Your task to perform on an android device: turn off location Image 0: 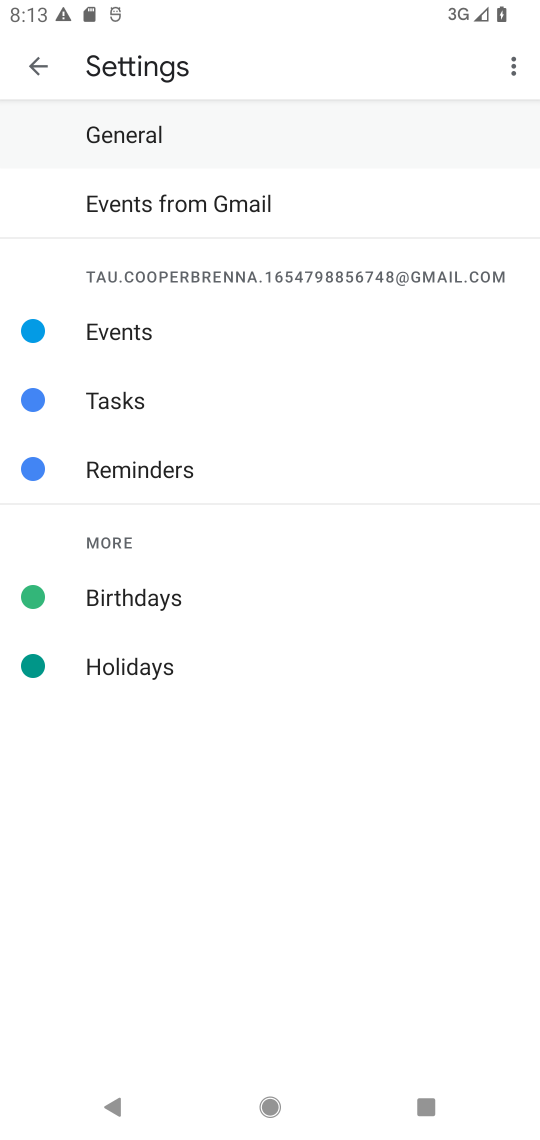
Step 0: press home button
Your task to perform on an android device: turn off location Image 1: 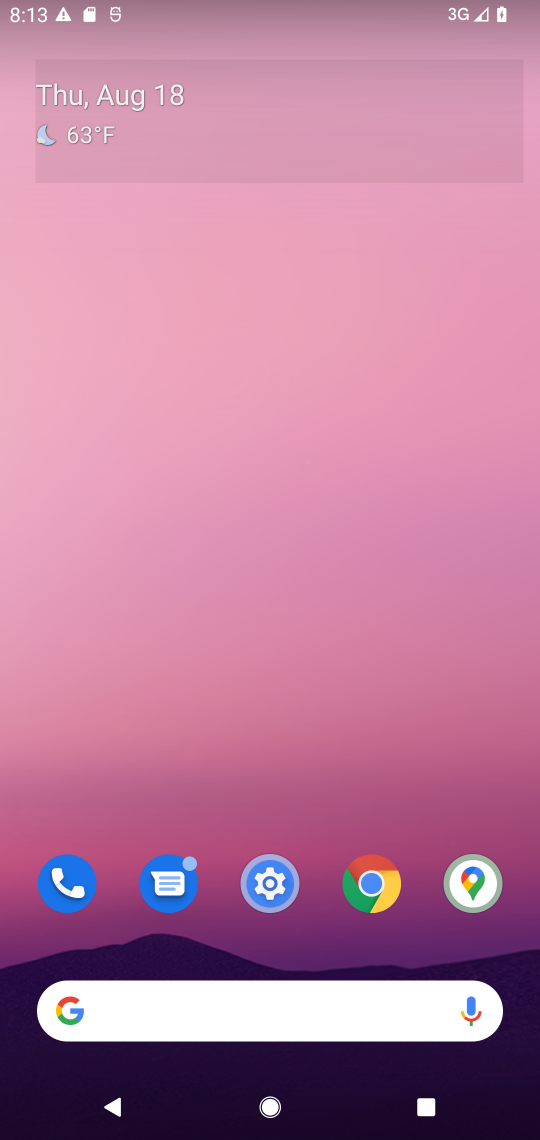
Step 1: drag from (35, 1095) to (405, 234)
Your task to perform on an android device: turn off location Image 2: 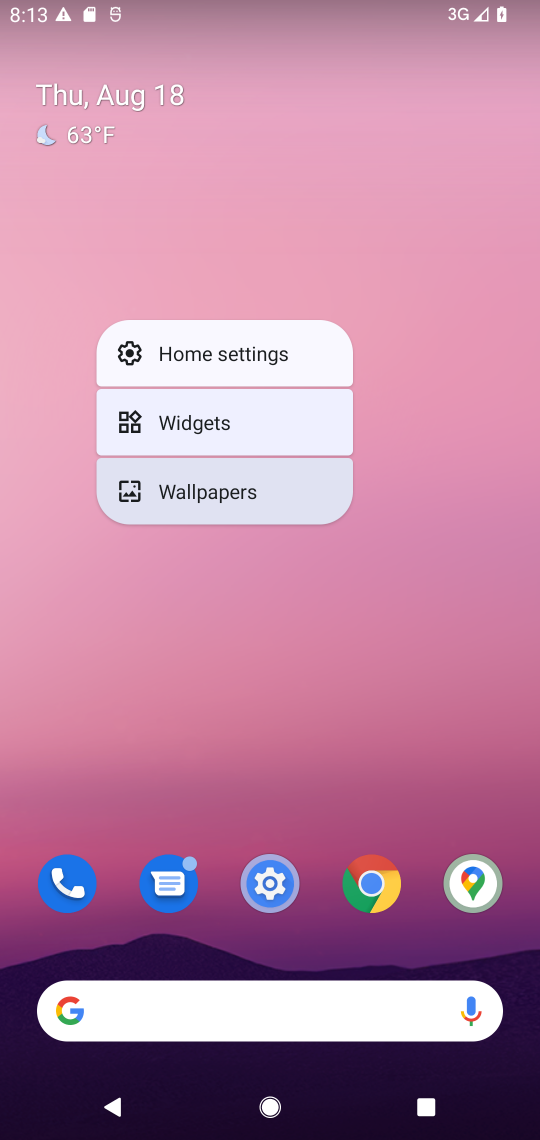
Step 2: click (259, 886)
Your task to perform on an android device: turn off location Image 3: 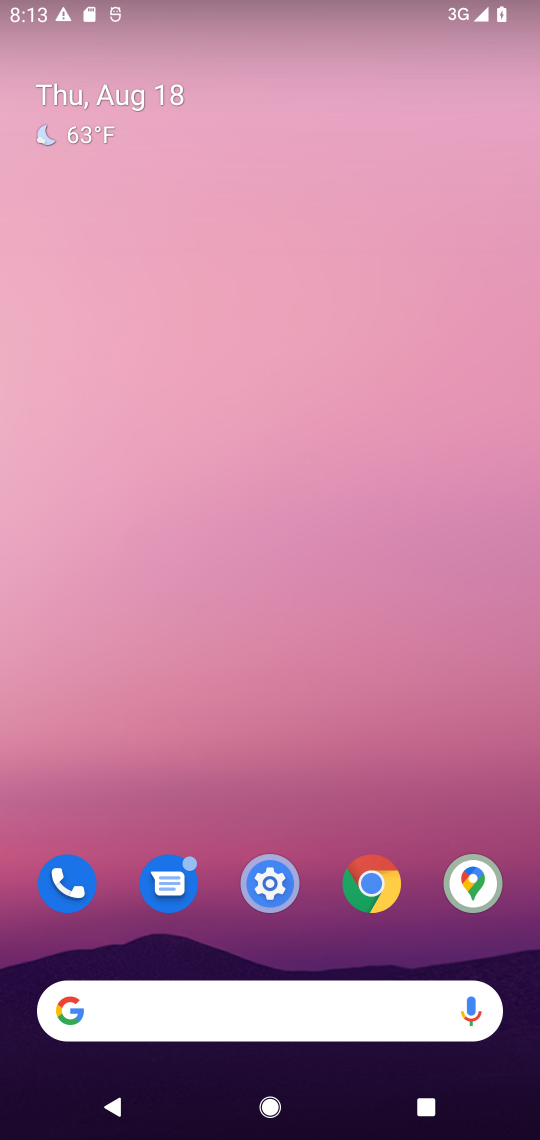
Step 3: click (263, 875)
Your task to perform on an android device: turn off location Image 4: 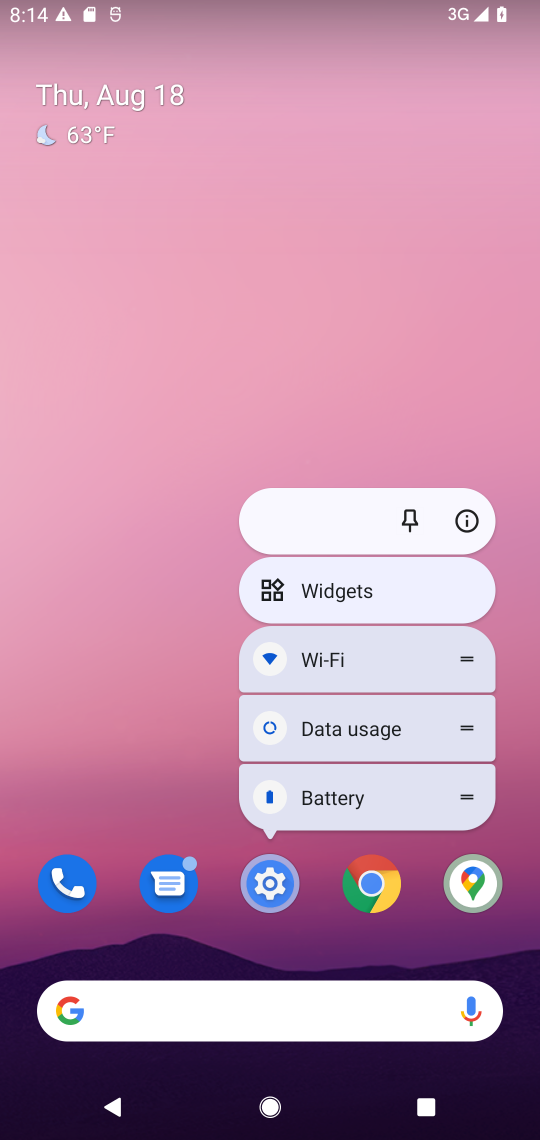
Step 4: task complete